Your task to perform on an android device: turn on sleep mode Image 0: 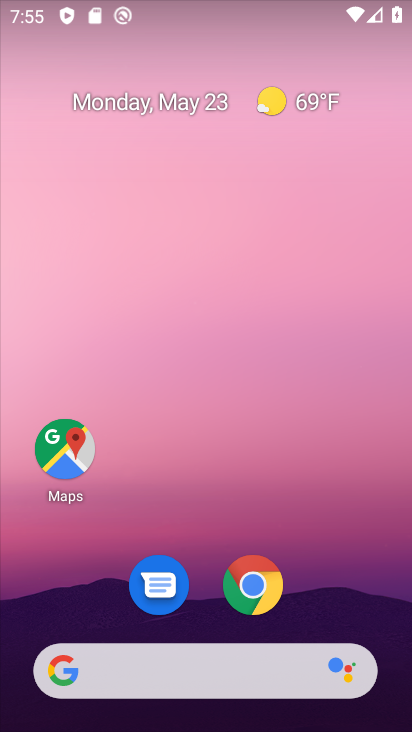
Step 0: drag from (225, 474) to (240, 25)
Your task to perform on an android device: turn on sleep mode Image 1: 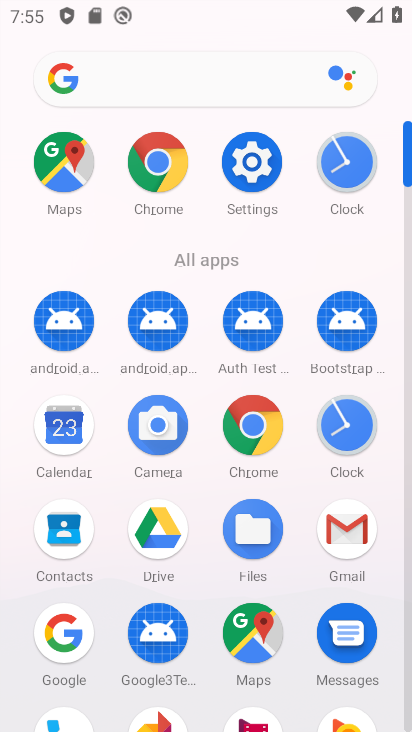
Step 1: click (243, 167)
Your task to perform on an android device: turn on sleep mode Image 2: 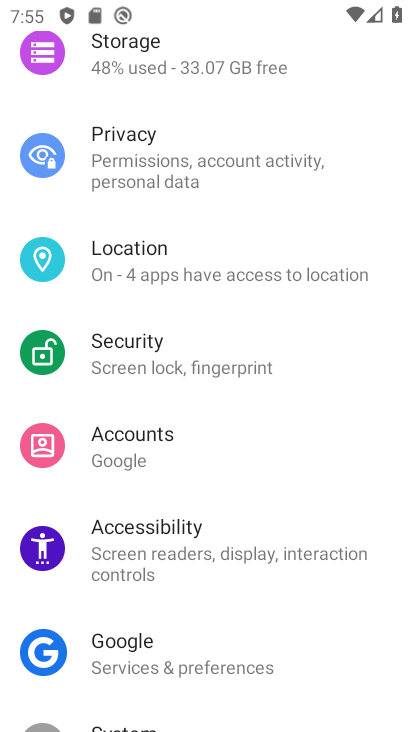
Step 2: drag from (229, 236) to (202, 638)
Your task to perform on an android device: turn on sleep mode Image 3: 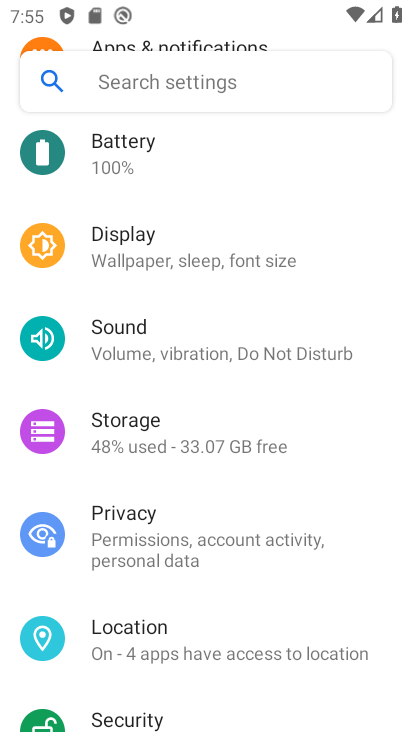
Step 3: click (217, 257)
Your task to perform on an android device: turn on sleep mode Image 4: 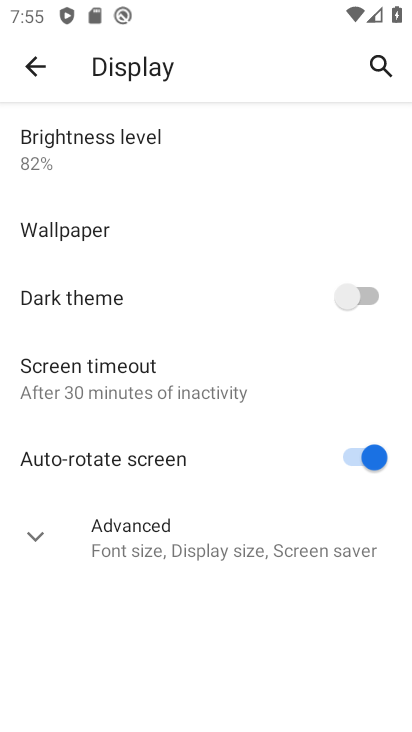
Step 4: click (33, 530)
Your task to perform on an android device: turn on sleep mode Image 5: 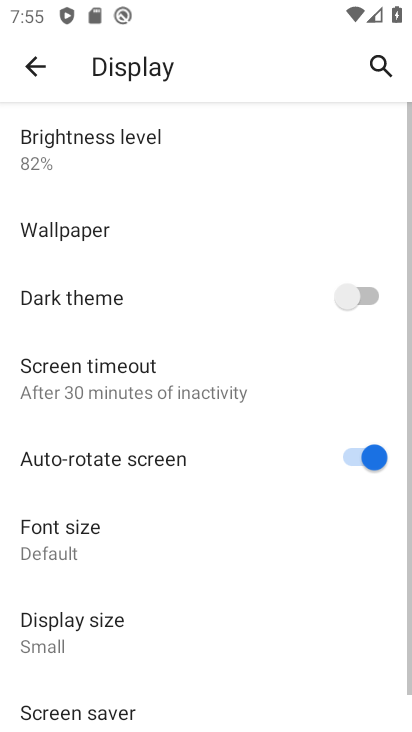
Step 5: task complete